Your task to perform on an android device: toggle sleep mode Image 0: 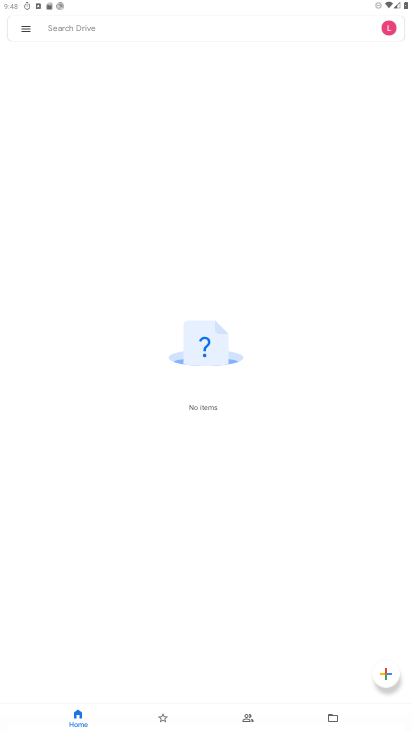
Step 0: press home button
Your task to perform on an android device: toggle sleep mode Image 1: 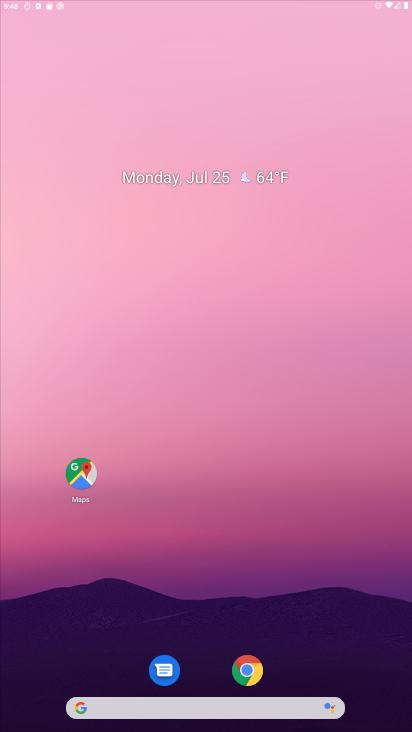
Step 1: drag from (379, 665) to (183, 33)
Your task to perform on an android device: toggle sleep mode Image 2: 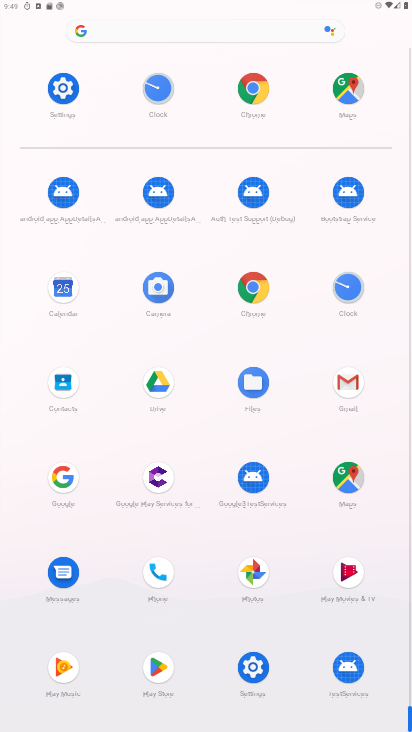
Step 2: click (255, 678)
Your task to perform on an android device: toggle sleep mode Image 3: 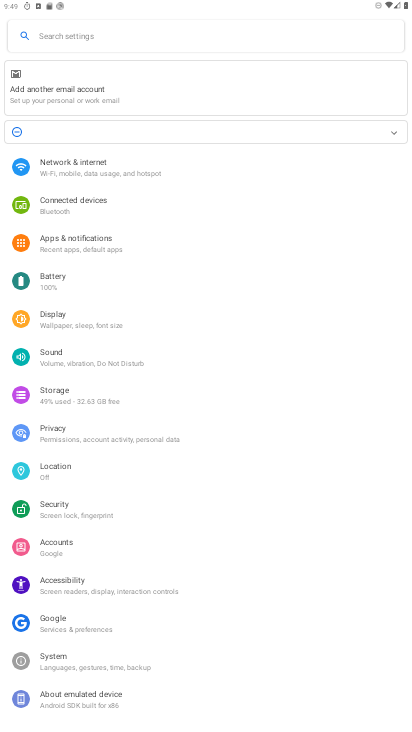
Step 3: task complete